Your task to perform on an android device: allow notifications from all sites in the chrome app Image 0: 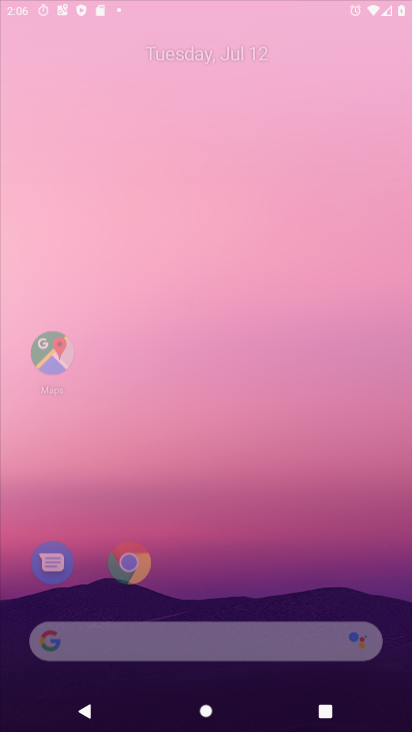
Step 0: drag from (235, 454) to (284, 147)
Your task to perform on an android device: allow notifications from all sites in the chrome app Image 1: 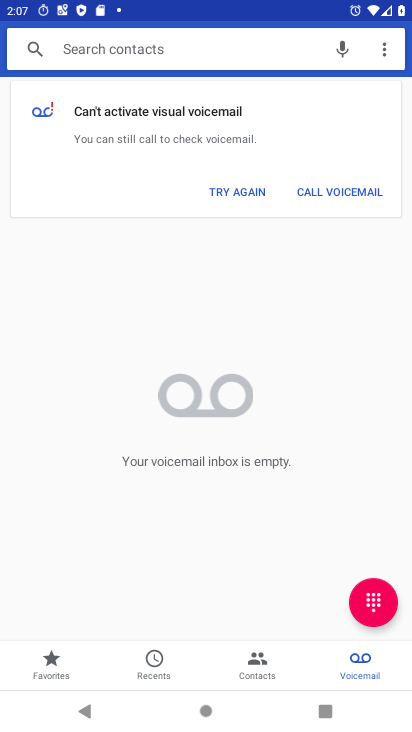
Step 1: drag from (175, 540) to (256, 109)
Your task to perform on an android device: allow notifications from all sites in the chrome app Image 2: 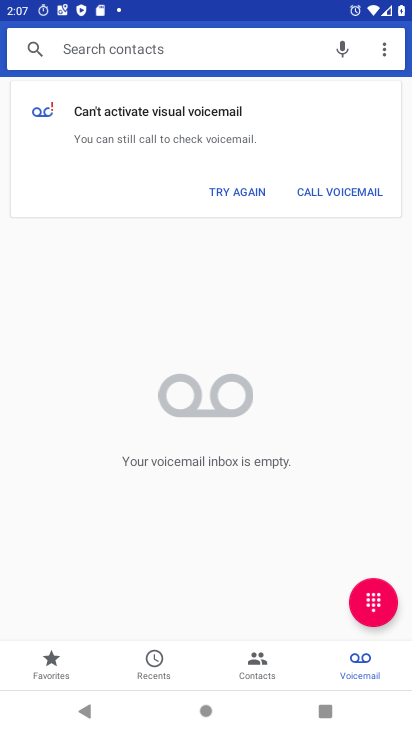
Step 2: press home button
Your task to perform on an android device: allow notifications from all sites in the chrome app Image 3: 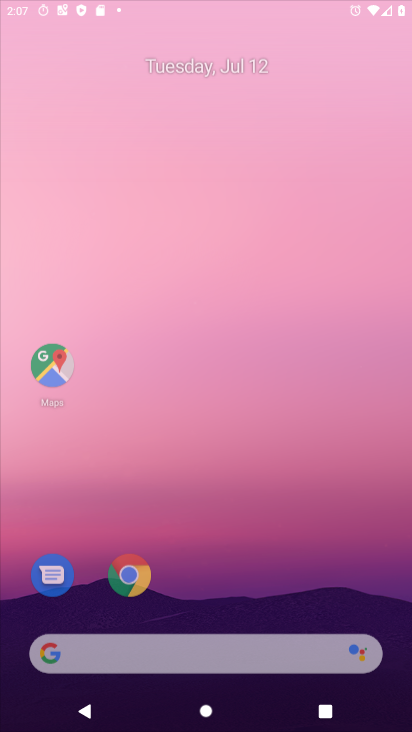
Step 3: drag from (174, 552) to (274, 36)
Your task to perform on an android device: allow notifications from all sites in the chrome app Image 4: 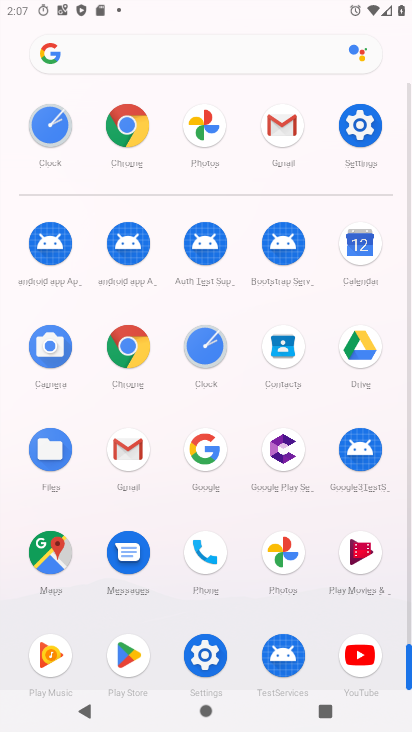
Step 4: click (126, 345)
Your task to perform on an android device: allow notifications from all sites in the chrome app Image 5: 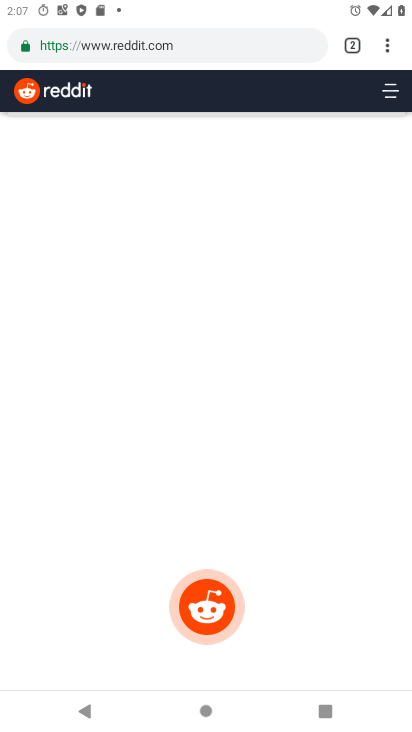
Step 5: click (395, 37)
Your task to perform on an android device: allow notifications from all sites in the chrome app Image 6: 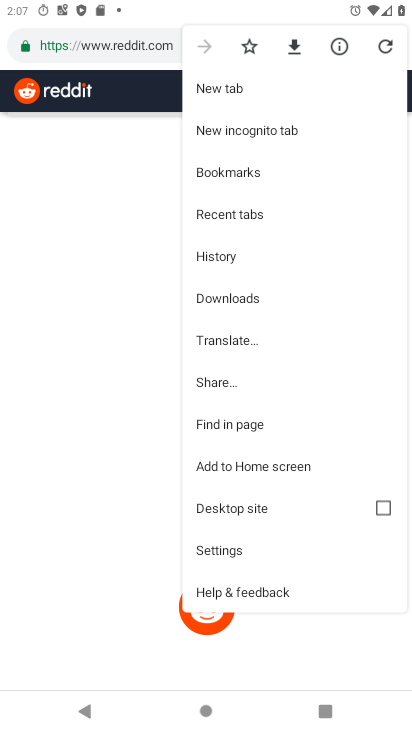
Step 6: drag from (240, 520) to (264, 141)
Your task to perform on an android device: allow notifications from all sites in the chrome app Image 7: 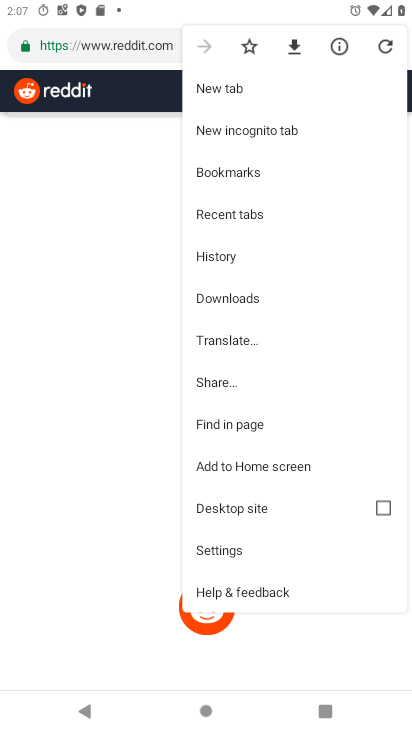
Step 7: click (241, 545)
Your task to perform on an android device: allow notifications from all sites in the chrome app Image 8: 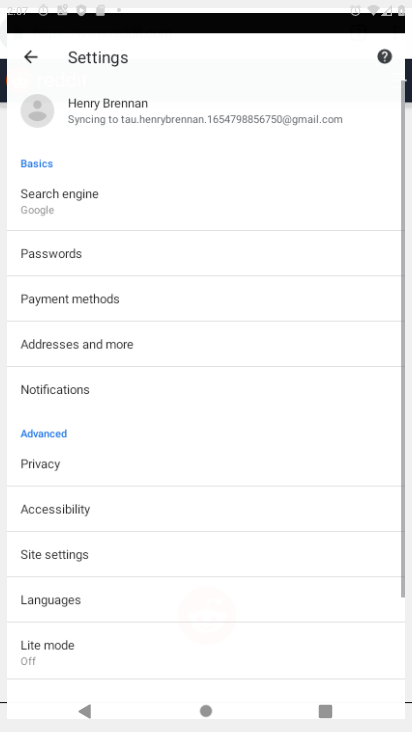
Step 8: drag from (241, 543) to (256, 125)
Your task to perform on an android device: allow notifications from all sites in the chrome app Image 9: 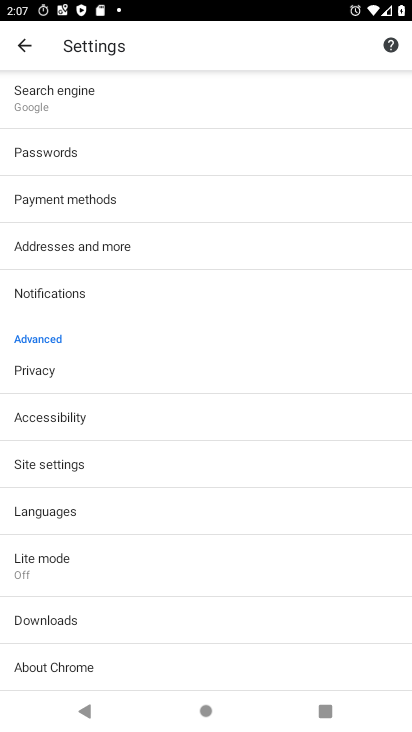
Step 9: drag from (90, 567) to (236, 171)
Your task to perform on an android device: allow notifications from all sites in the chrome app Image 10: 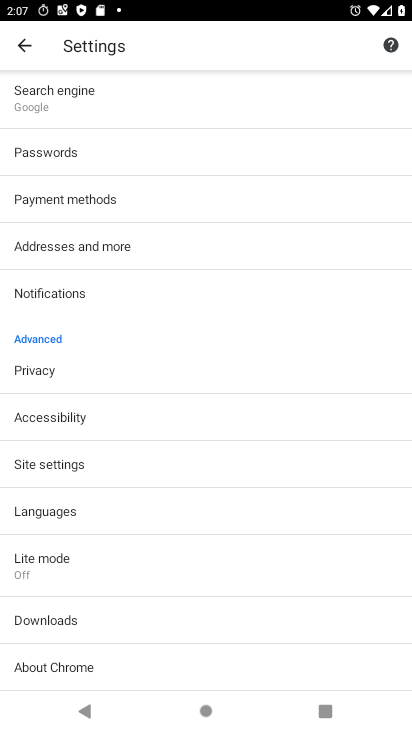
Step 10: click (90, 465)
Your task to perform on an android device: allow notifications from all sites in the chrome app Image 11: 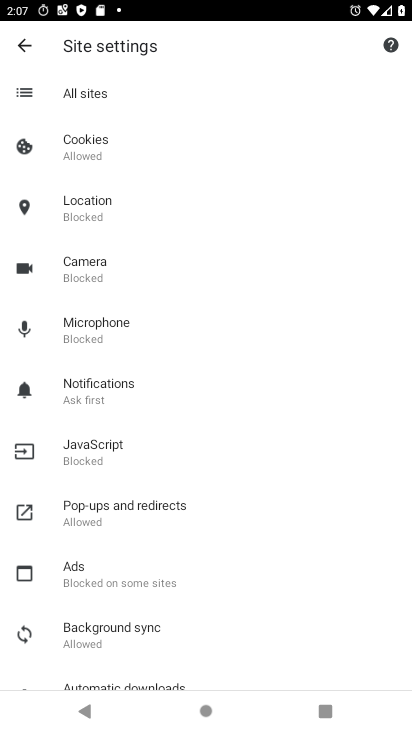
Step 11: click (103, 385)
Your task to perform on an android device: allow notifications from all sites in the chrome app Image 12: 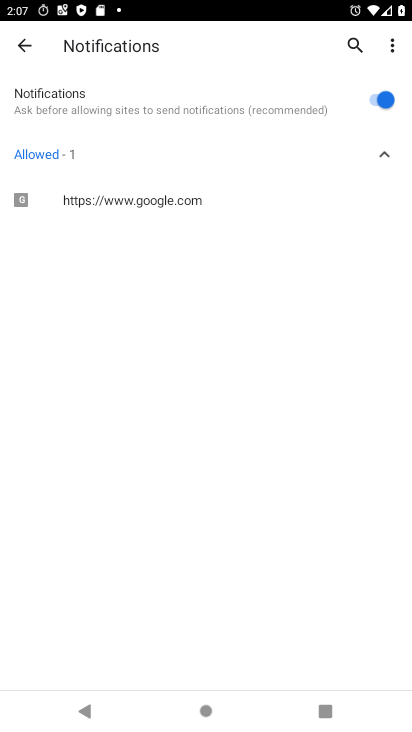
Step 12: task complete